Your task to perform on an android device: set an alarm Image 0: 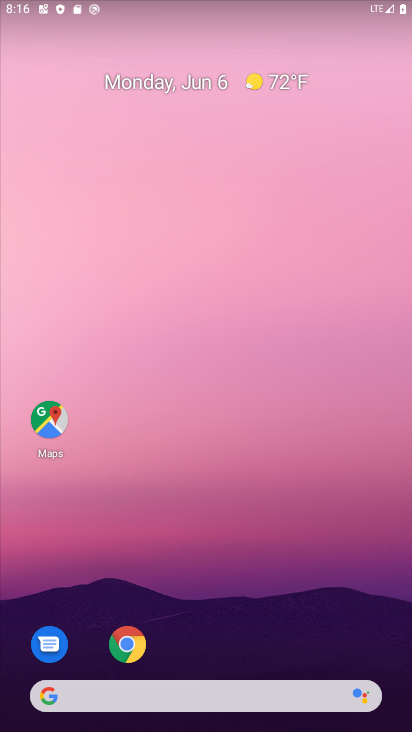
Step 0: drag from (271, 715) to (249, 184)
Your task to perform on an android device: set an alarm Image 1: 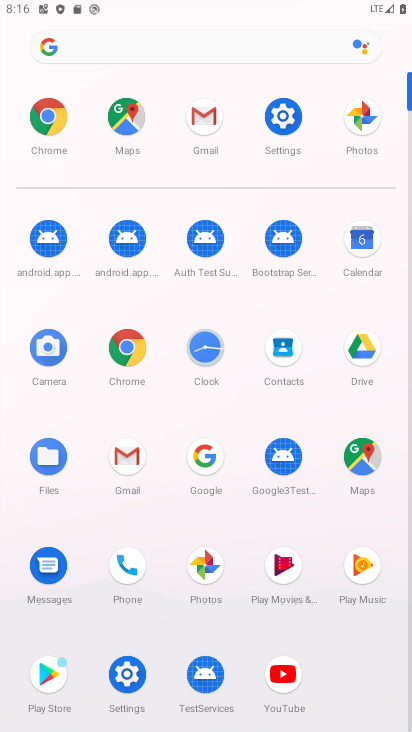
Step 1: click (208, 356)
Your task to perform on an android device: set an alarm Image 2: 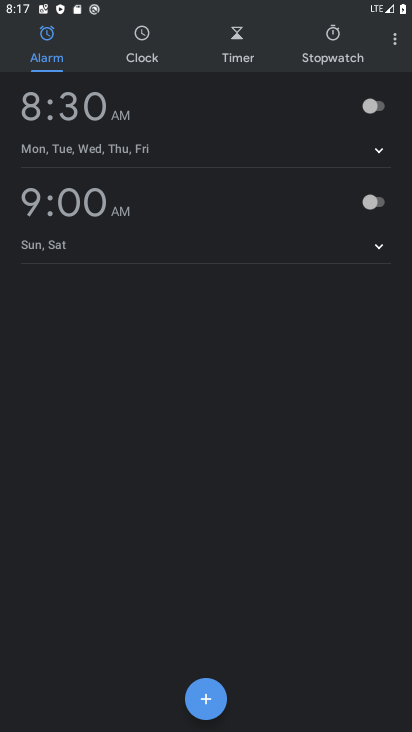
Step 2: click (367, 108)
Your task to perform on an android device: set an alarm Image 3: 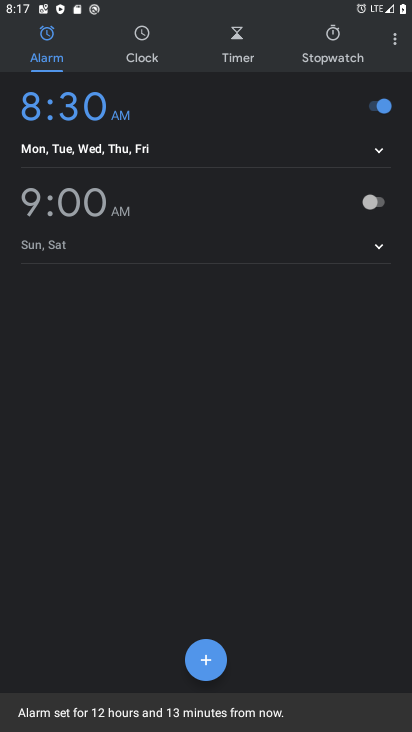
Step 3: task complete